Your task to perform on an android device: Open Maps and search for coffee Image 0: 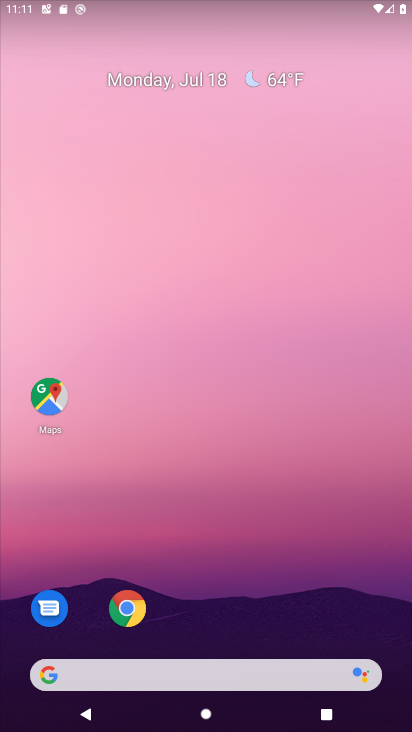
Step 0: drag from (197, 607) to (160, 53)
Your task to perform on an android device: Open Maps and search for coffee Image 1: 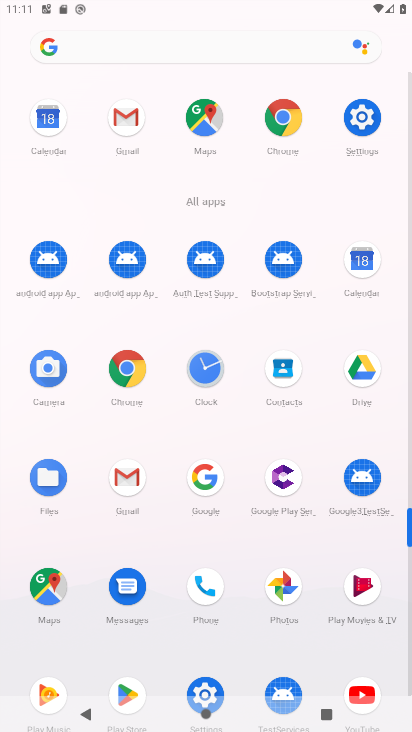
Step 1: click (55, 590)
Your task to perform on an android device: Open Maps and search for coffee Image 2: 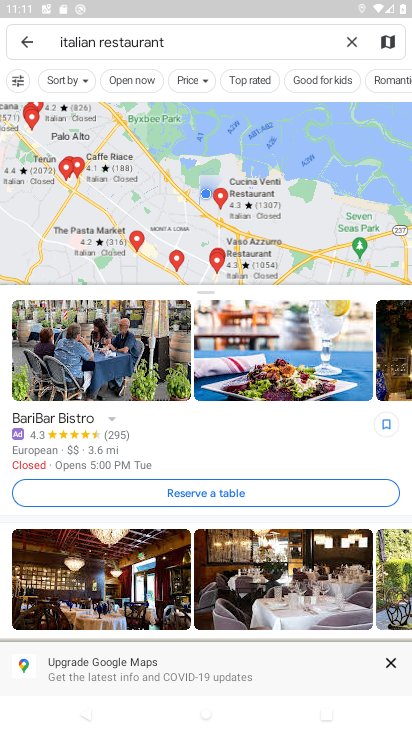
Step 2: click (357, 43)
Your task to perform on an android device: Open Maps and search for coffee Image 3: 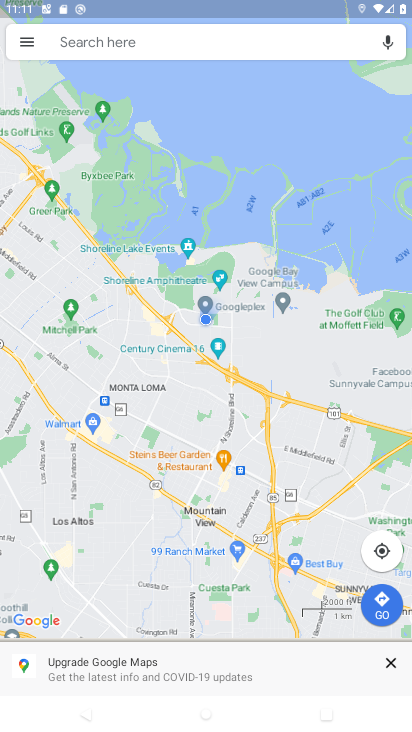
Step 3: click (198, 45)
Your task to perform on an android device: Open Maps and search for coffee Image 4: 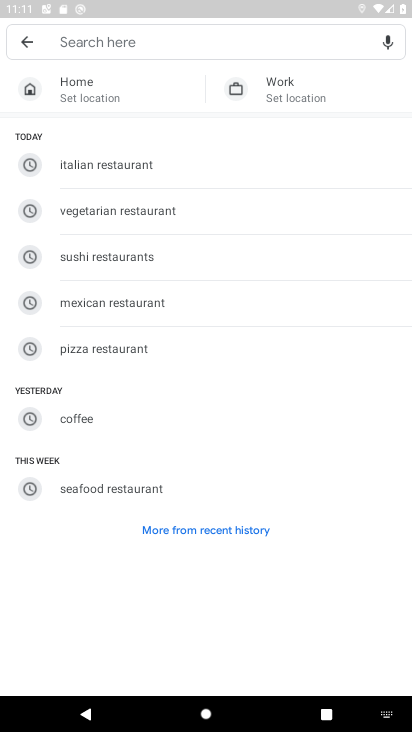
Step 4: type "coffee"
Your task to perform on an android device: Open Maps and search for coffee Image 5: 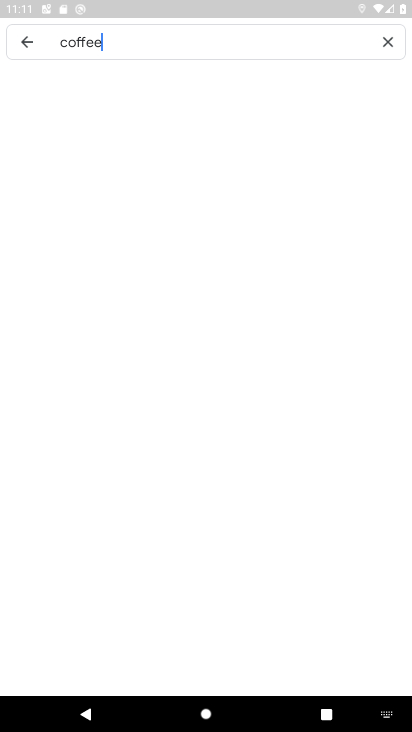
Step 5: type ""
Your task to perform on an android device: Open Maps and search for coffee Image 6: 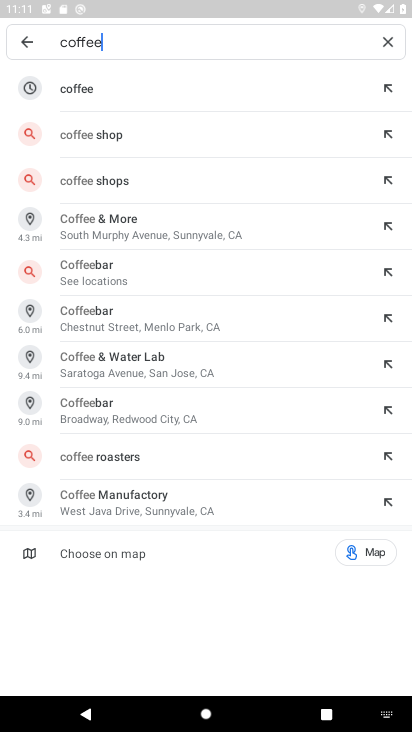
Step 6: click (101, 80)
Your task to perform on an android device: Open Maps and search for coffee Image 7: 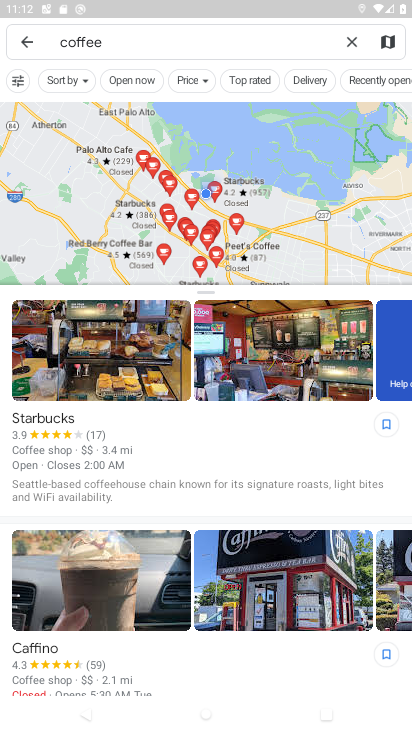
Step 7: task complete